Your task to perform on an android device: Open wifi settings Image 0: 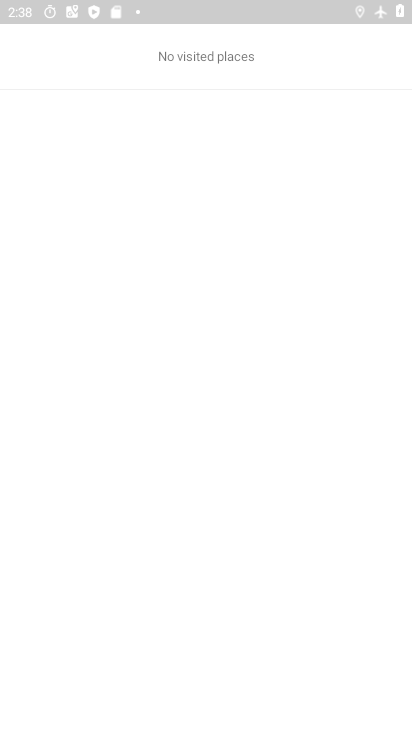
Step 0: drag from (185, 634) to (185, 183)
Your task to perform on an android device: Open wifi settings Image 1: 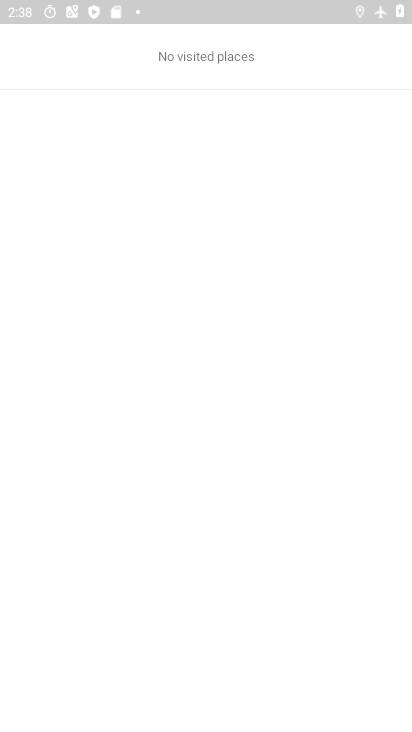
Step 1: press home button
Your task to perform on an android device: Open wifi settings Image 2: 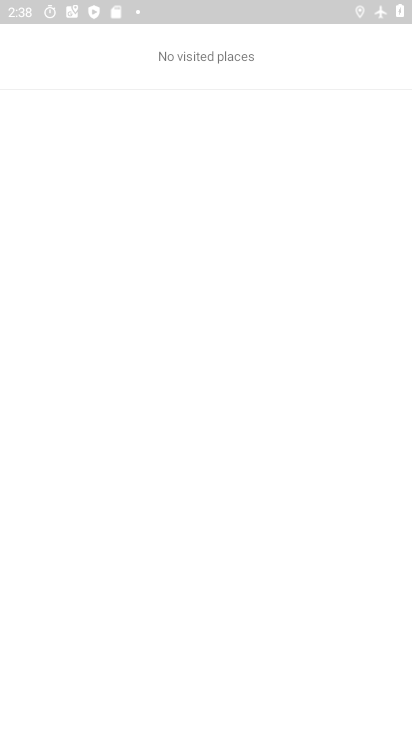
Step 2: drag from (263, 291) to (305, 137)
Your task to perform on an android device: Open wifi settings Image 3: 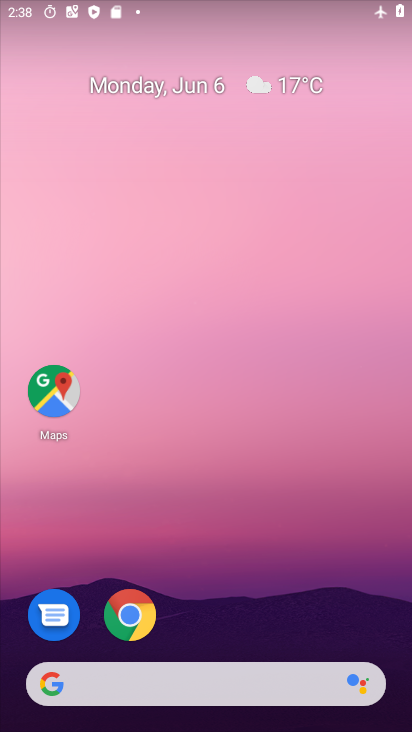
Step 3: drag from (228, 473) to (280, 98)
Your task to perform on an android device: Open wifi settings Image 4: 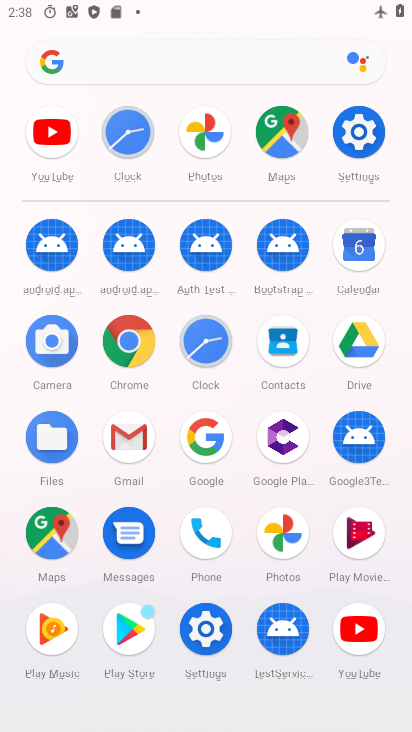
Step 4: click (354, 131)
Your task to perform on an android device: Open wifi settings Image 5: 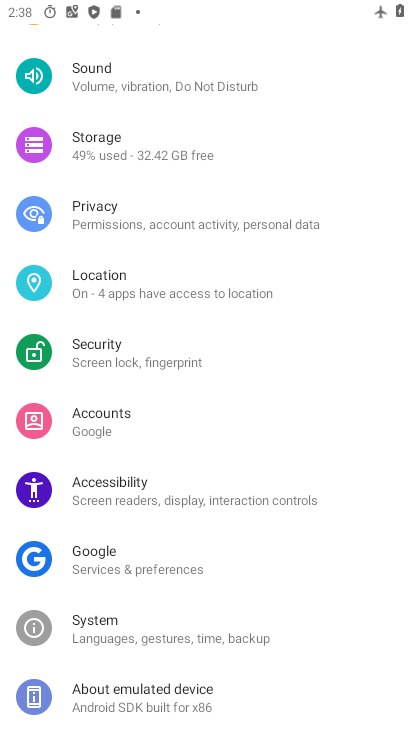
Step 5: drag from (173, 172) to (301, 729)
Your task to perform on an android device: Open wifi settings Image 6: 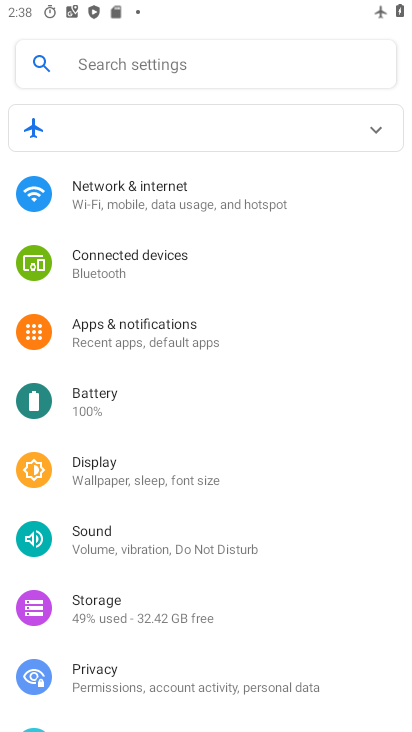
Step 6: click (192, 187)
Your task to perform on an android device: Open wifi settings Image 7: 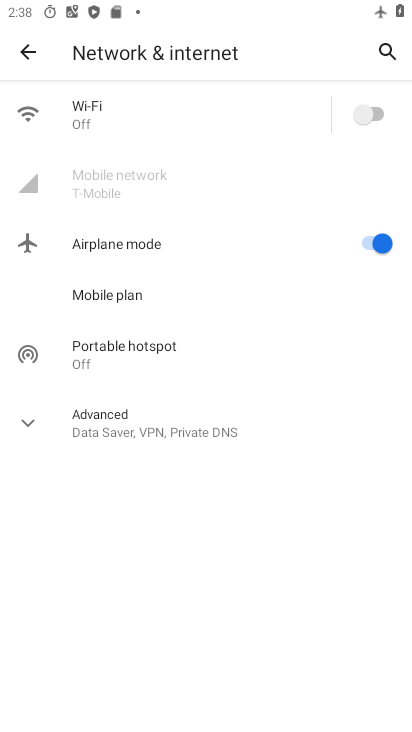
Step 7: click (191, 123)
Your task to perform on an android device: Open wifi settings Image 8: 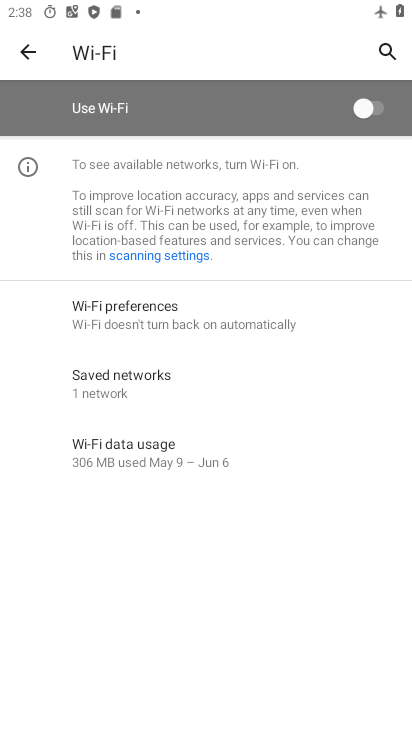
Step 8: drag from (220, 511) to (283, 173)
Your task to perform on an android device: Open wifi settings Image 9: 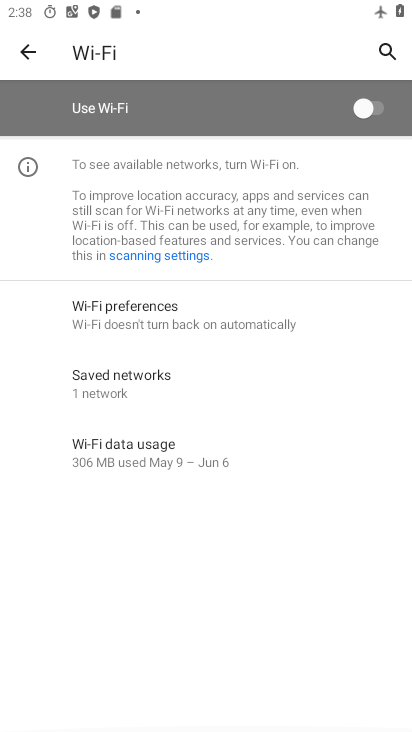
Step 9: drag from (226, 481) to (257, 220)
Your task to perform on an android device: Open wifi settings Image 10: 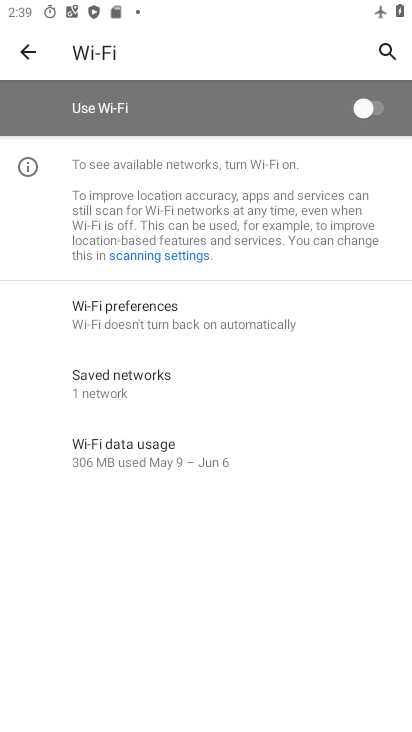
Step 10: click (324, 294)
Your task to perform on an android device: Open wifi settings Image 11: 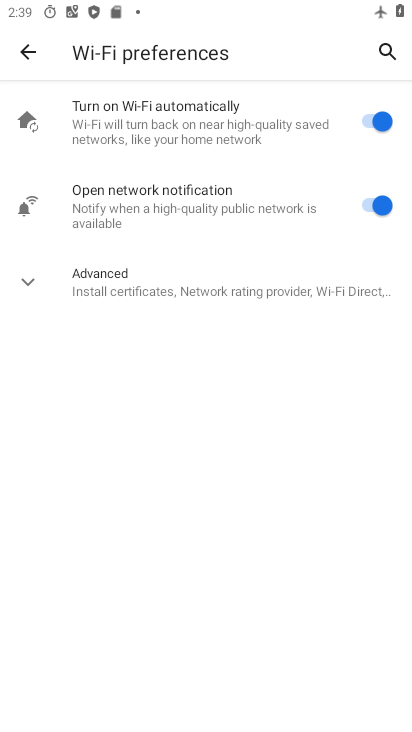
Step 11: drag from (304, 265) to (359, 575)
Your task to perform on an android device: Open wifi settings Image 12: 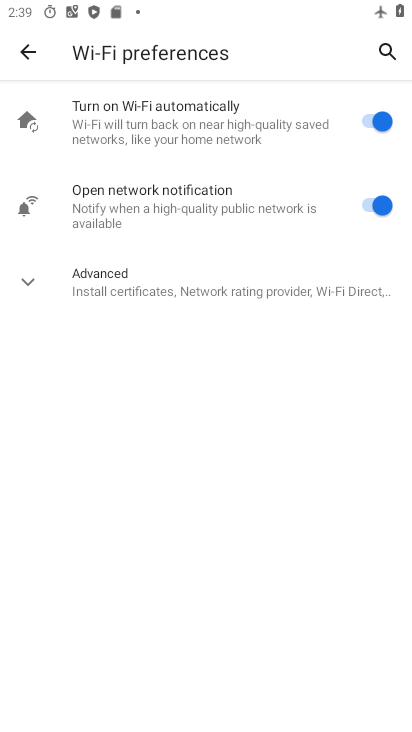
Step 12: drag from (204, 600) to (244, 291)
Your task to perform on an android device: Open wifi settings Image 13: 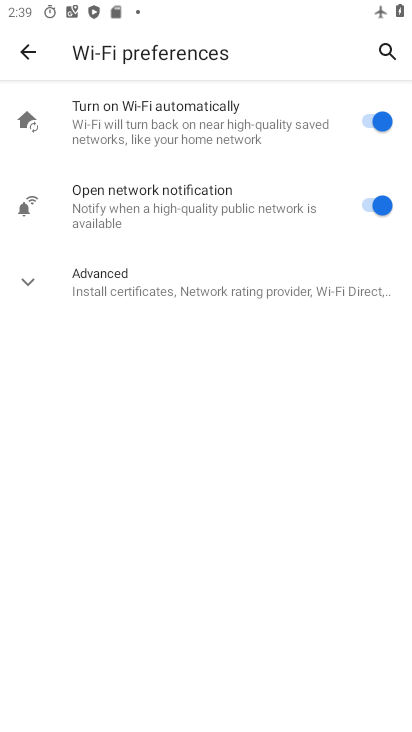
Step 13: click (31, 54)
Your task to perform on an android device: Open wifi settings Image 14: 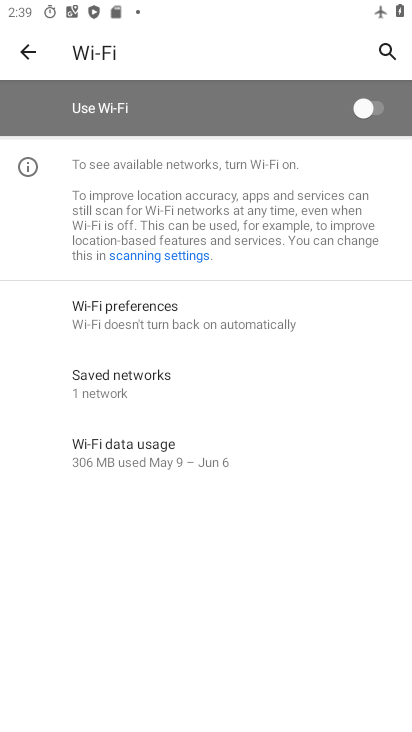
Step 14: task complete